Your task to perform on an android device: refresh tabs in the chrome app Image 0: 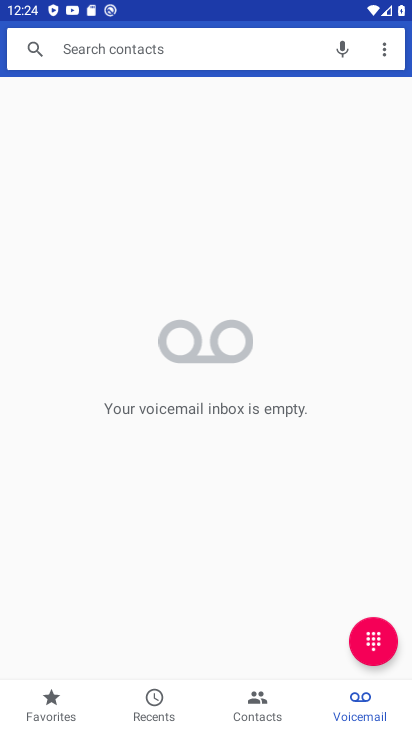
Step 0: press home button
Your task to perform on an android device: refresh tabs in the chrome app Image 1: 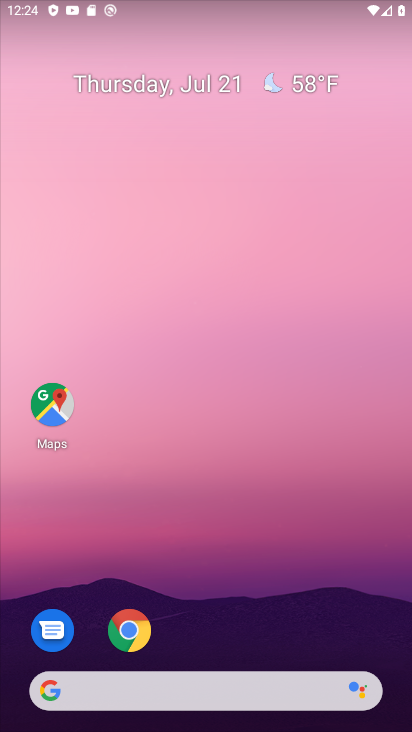
Step 1: click (137, 632)
Your task to perform on an android device: refresh tabs in the chrome app Image 2: 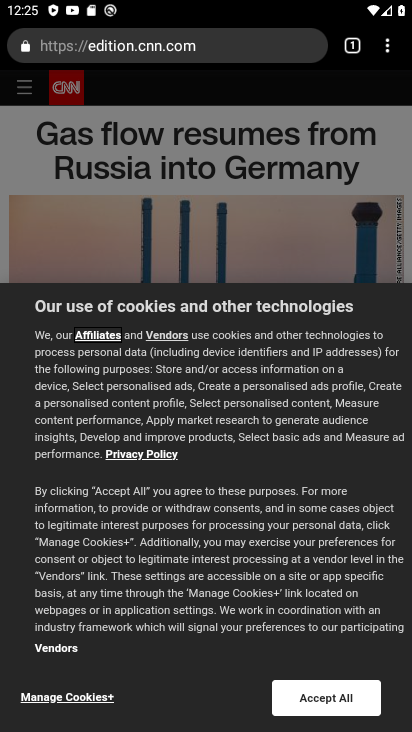
Step 2: click (389, 49)
Your task to perform on an android device: refresh tabs in the chrome app Image 3: 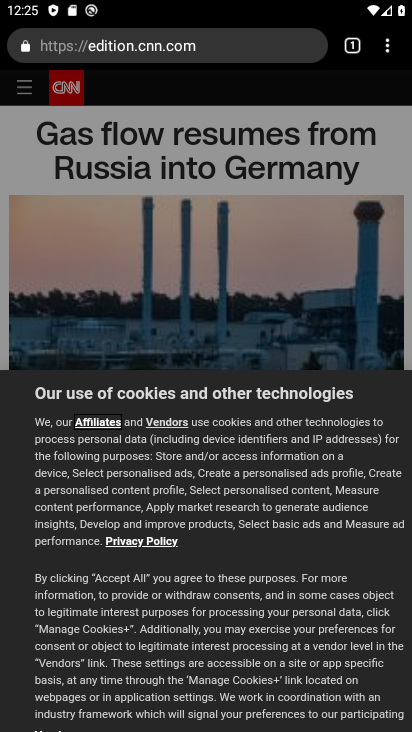
Step 3: task complete